Your task to perform on an android device: open chrome and create a bookmark for the current page Image 0: 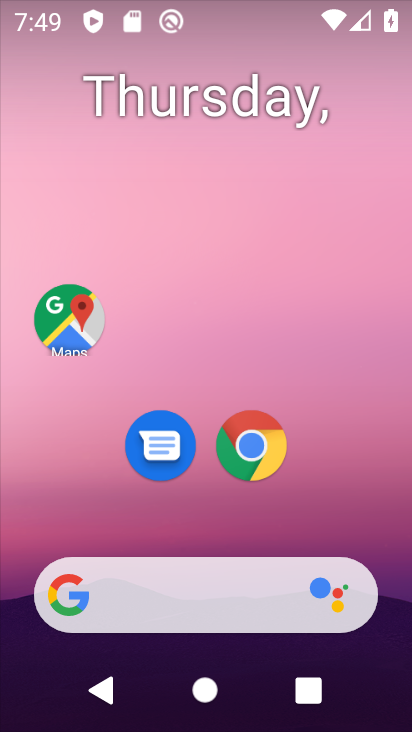
Step 0: click (249, 453)
Your task to perform on an android device: open chrome and create a bookmark for the current page Image 1: 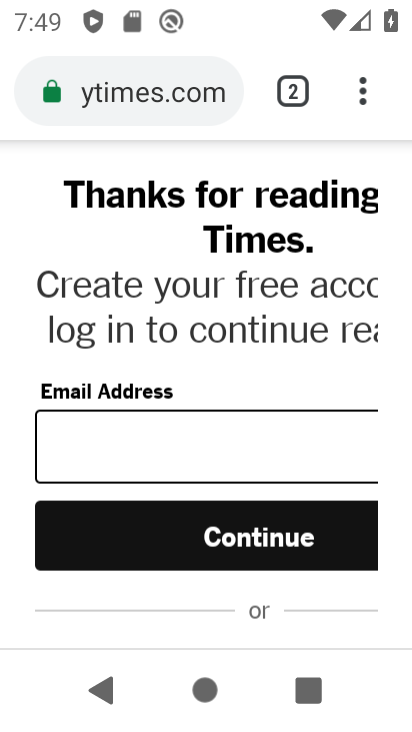
Step 1: click (369, 93)
Your task to perform on an android device: open chrome and create a bookmark for the current page Image 2: 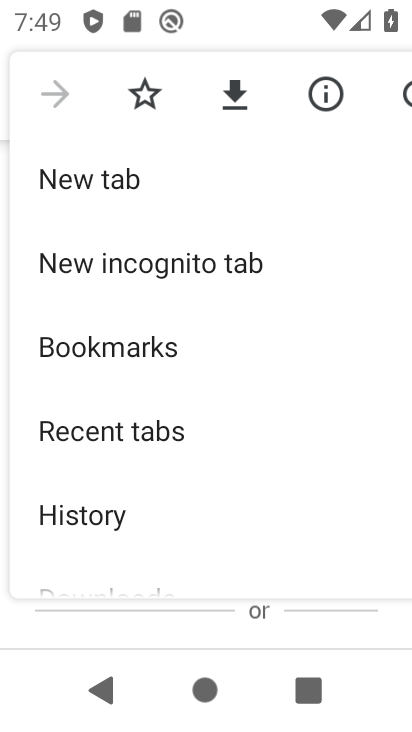
Step 2: click (140, 103)
Your task to perform on an android device: open chrome and create a bookmark for the current page Image 3: 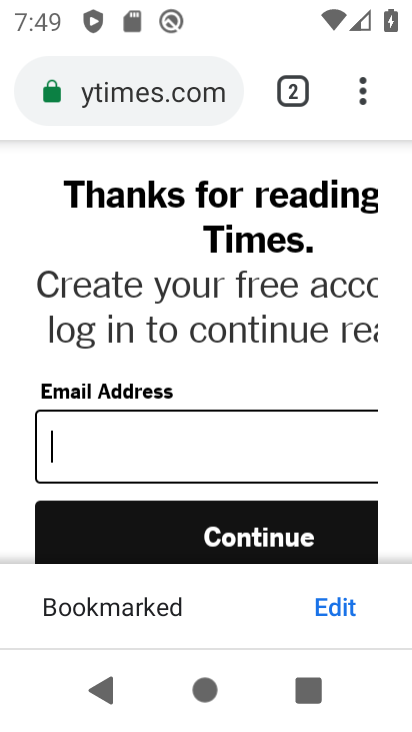
Step 3: task complete